Your task to perform on an android device: Open display settings Image 0: 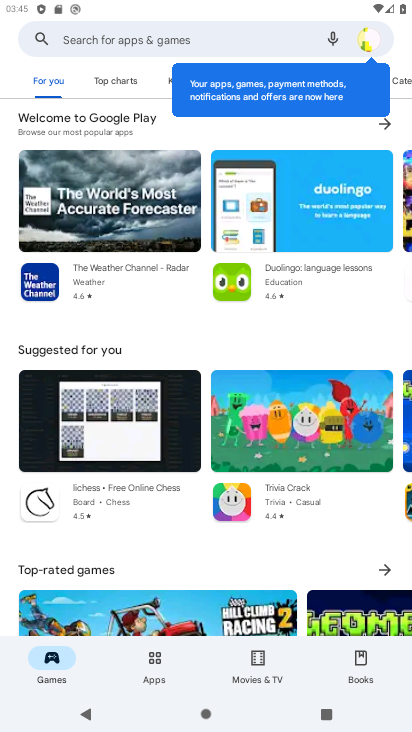
Step 0: press back button
Your task to perform on an android device: Open display settings Image 1: 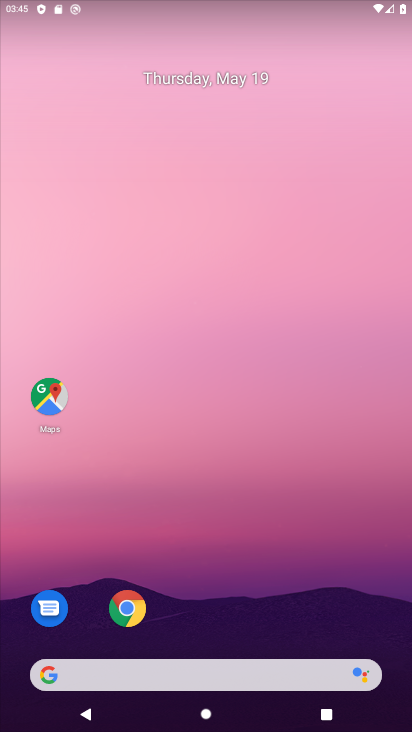
Step 1: drag from (225, 593) to (330, 1)
Your task to perform on an android device: Open display settings Image 2: 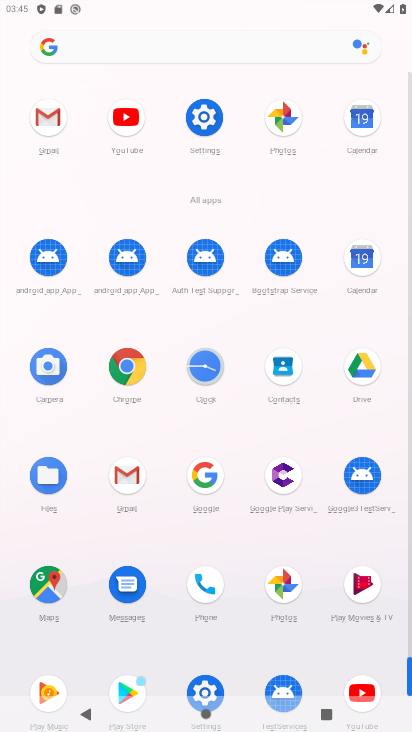
Step 2: click (206, 116)
Your task to perform on an android device: Open display settings Image 3: 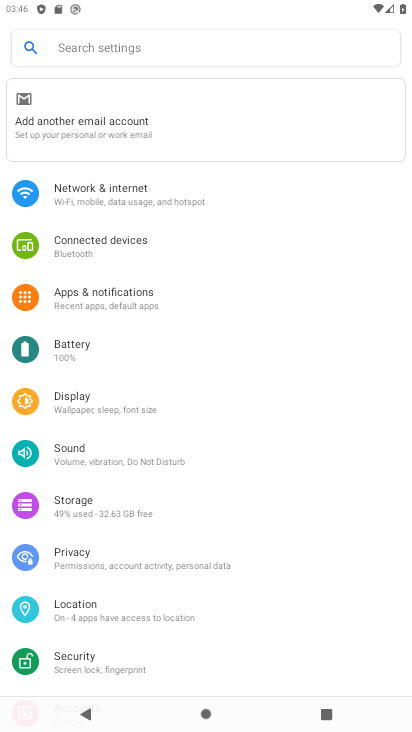
Step 3: click (111, 408)
Your task to perform on an android device: Open display settings Image 4: 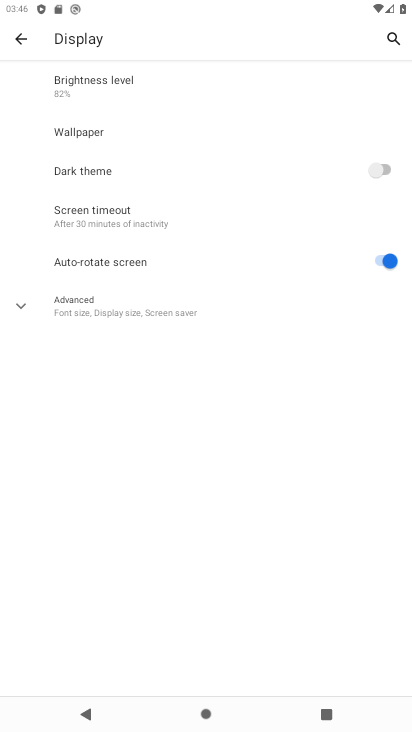
Step 4: task complete